Your task to perform on an android device: Show me productivity apps on the Play Store Image 0: 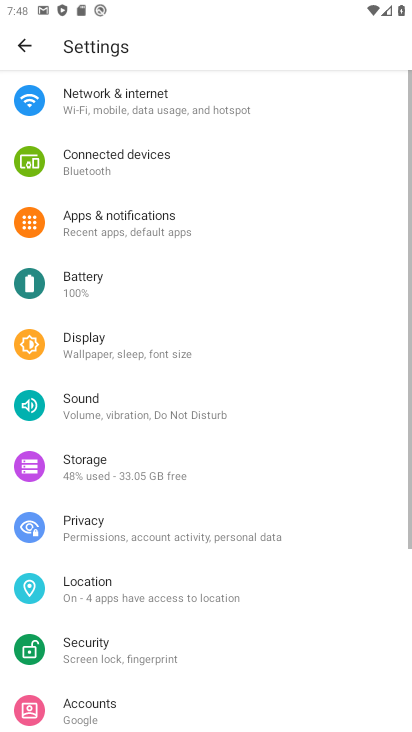
Step 0: press home button
Your task to perform on an android device: Show me productivity apps on the Play Store Image 1: 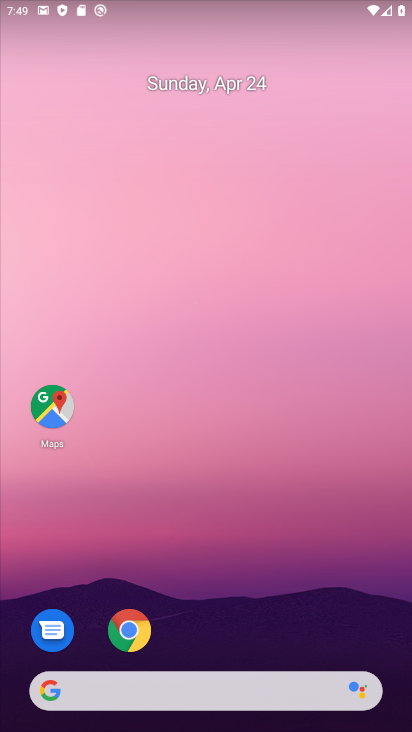
Step 1: drag from (254, 620) to (136, 87)
Your task to perform on an android device: Show me productivity apps on the Play Store Image 2: 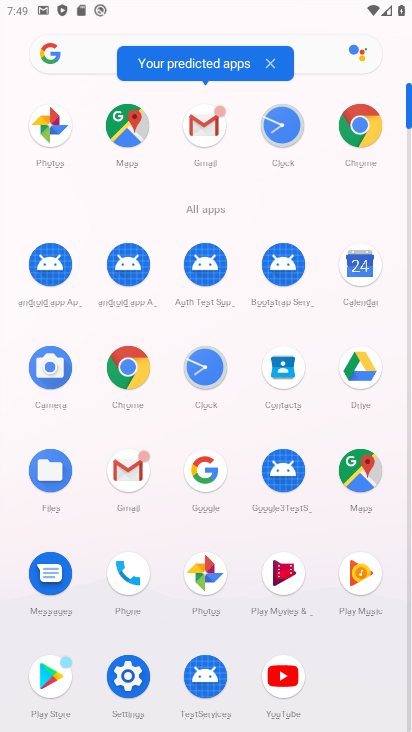
Step 2: click (57, 693)
Your task to perform on an android device: Show me productivity apps on the Play Store Image 3: 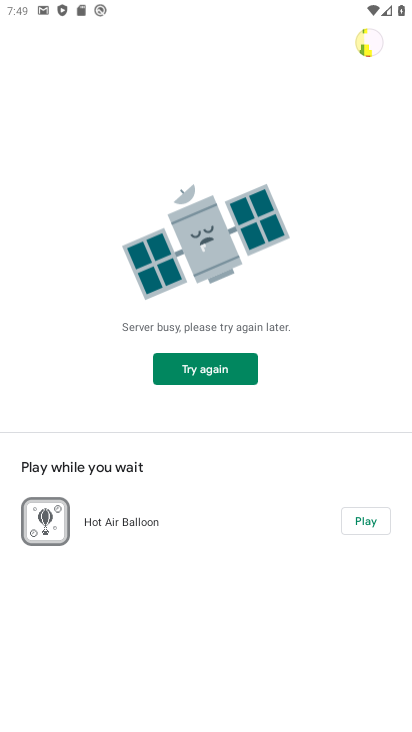
Step 3: click (232, 362)
Your task to perform on an android device: Show me productivity apps on the Play Store Image 4: 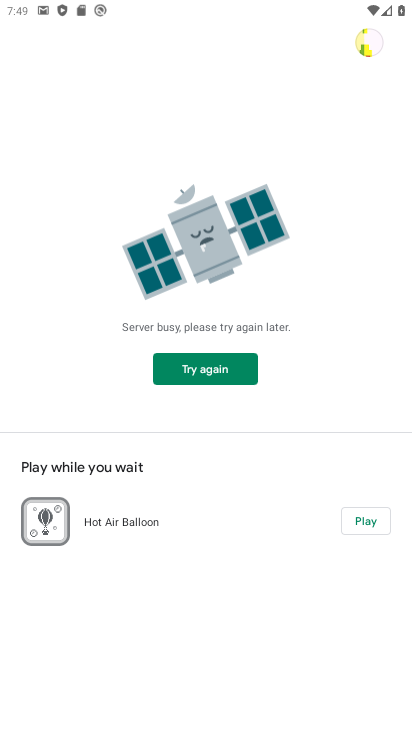
Step 4: click (239, 364)
Your task to perform on an android device: Show me productivity apps on the Play Store Image 5: 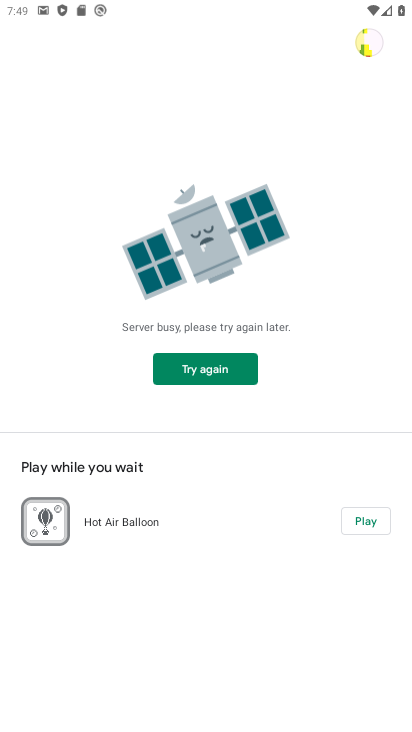
Step 5: task complete